Your task to perform on an android device: Go to privacy settings Image 0: 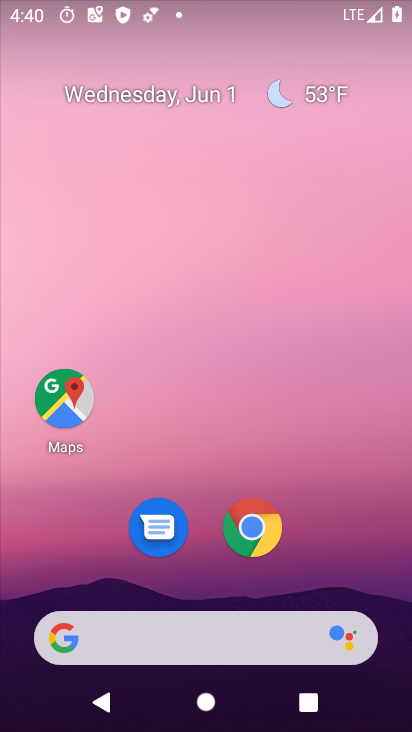
Step 0: drag from (334, 589) to (363, 10)
Your task to perform on an android device: Go to privacy settings Image 1: 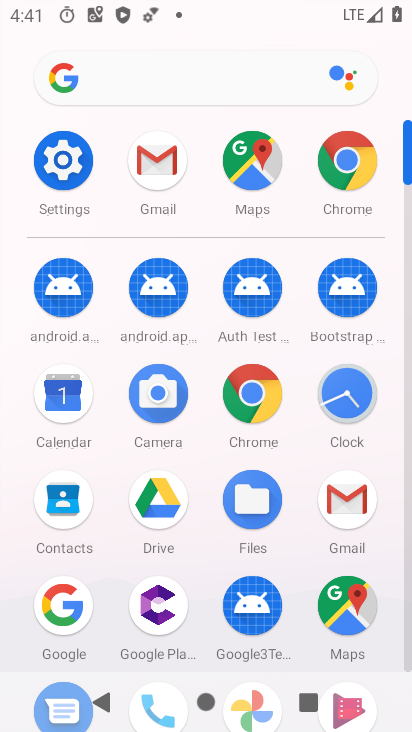
Step 1: click (64, 159)
Your task to perform on an android device: Go to privacy settings Image 2: 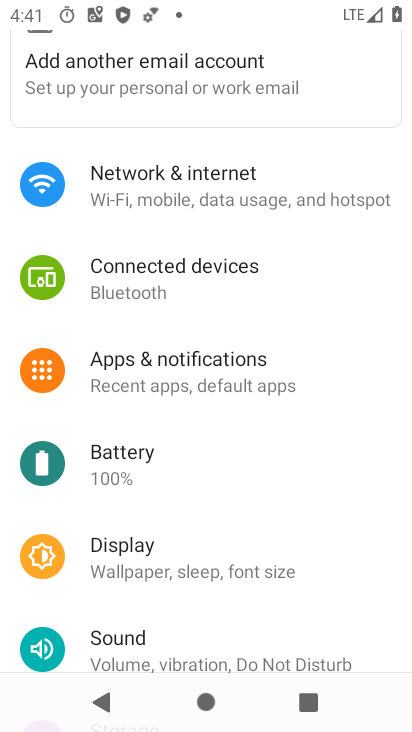
Step 2: drag from (229, 630) to (333, 187)
Your task to perform on an android device: Go to privacy settings Image 3: 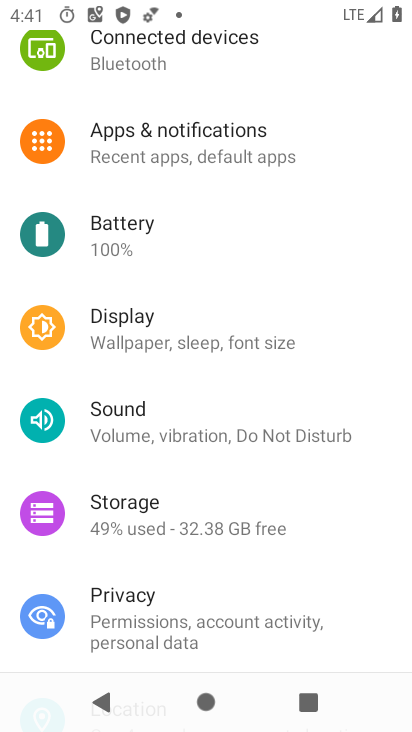
Step 3: click (137, 606)
Your task to perform on an android device: Go to privacy settings Image 4: 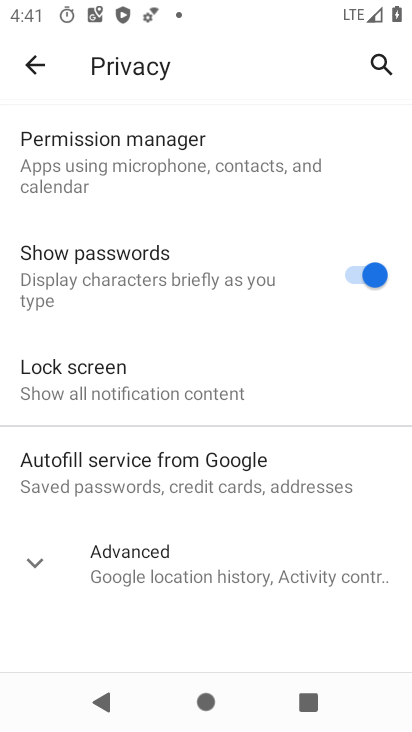
Step 4: task complete